Your task to perform on an android device: move an email to a new category in the gmail app Image 0: 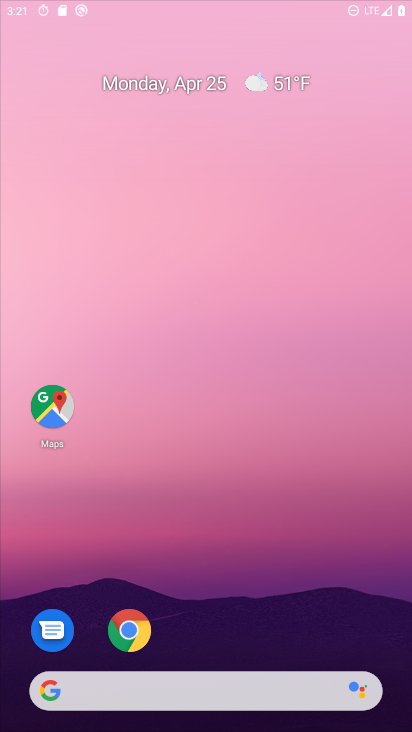
Step 0: drag from (192, 633) to (300, 146)
Your task to perform on an android device: move an email to a new category in the gmail app Image 1: 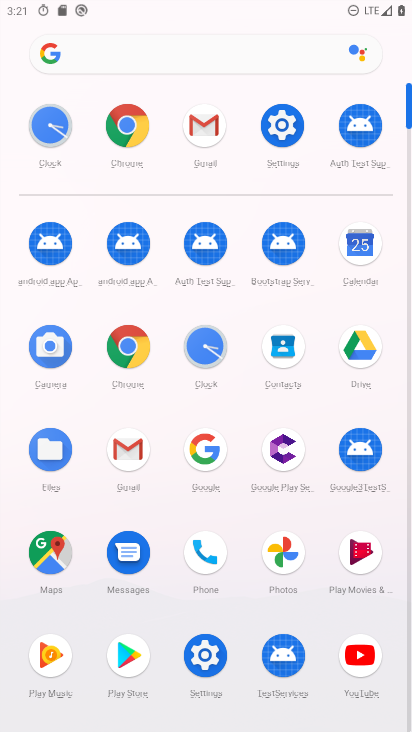
Step 1: drag from (196, 645) to (236, 322)
Your task to perform on an android device: move an email to a new category in the gmail app Image 2: 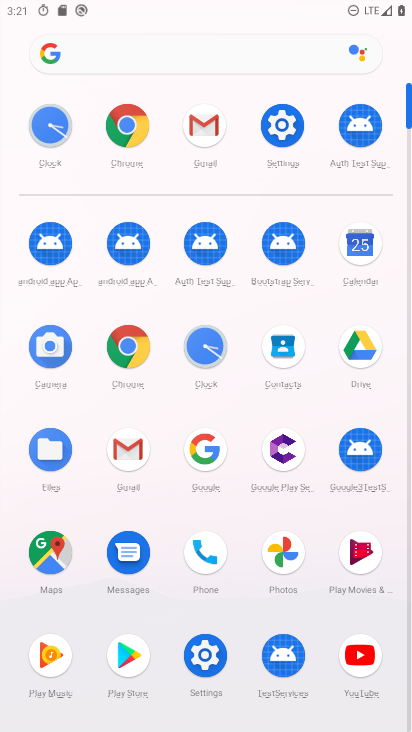
Step 2: click (128, 445)
Your task to perform on an android device: move an email to a new category in the gmail app Image 3: 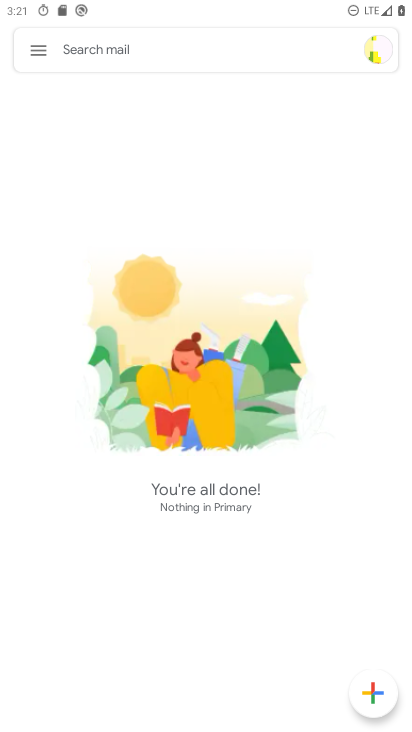
Step 3: click (42, 54)
Your task to perform on an android device: move an email to a new category in the gmail app Image 4: 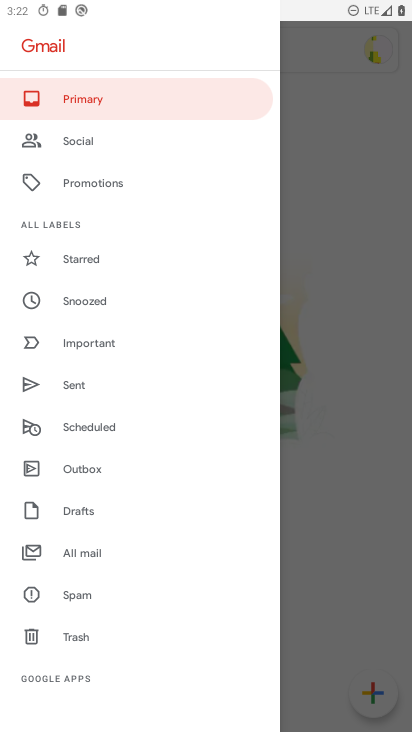
Step 4: click (81, 141)
Your task to perform on an android device: move an email to a new category in the gmail app Image 5: 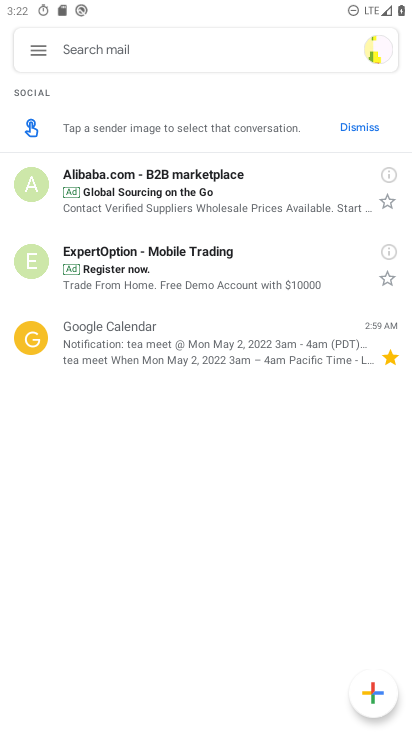
Step 5: drag from (212, 505) to (226, 257)
Your task to perform on an android device: move an email to a new category in the gmail app Image 6: 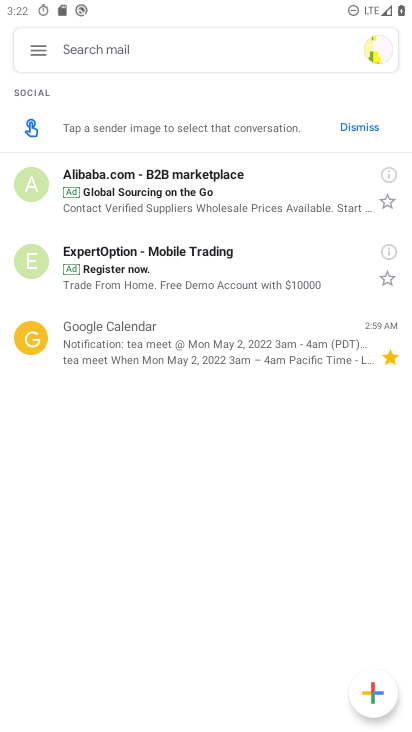
Step 6: click (29, 59)
Your task to perform on an android device: move an email to a new category in the gmail app Image 7: 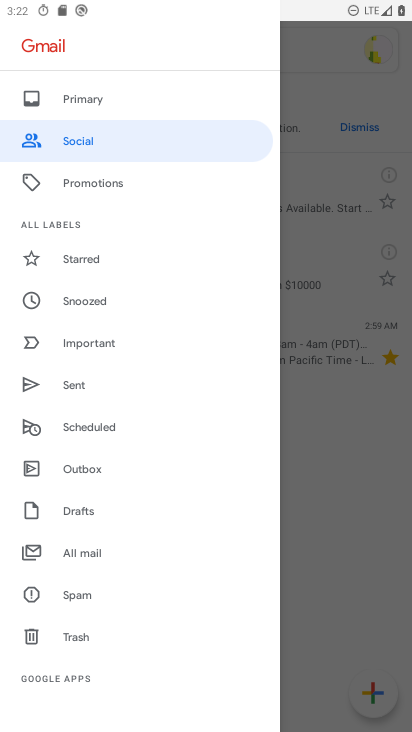
Step 7: drag from (180, 530) to (199, 320)
Your task to perform on an android device: move an email to a new category in the gmail app Image 8: 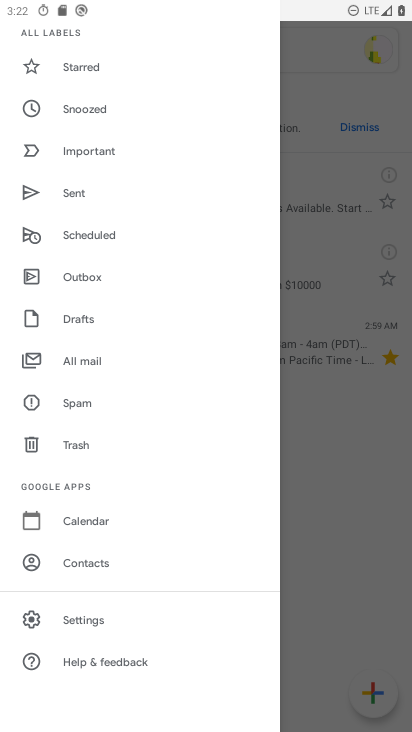
Step 8: click (99, 620)
Your task to perform on an android device: move an email to a new category in the gmail app Image 9: 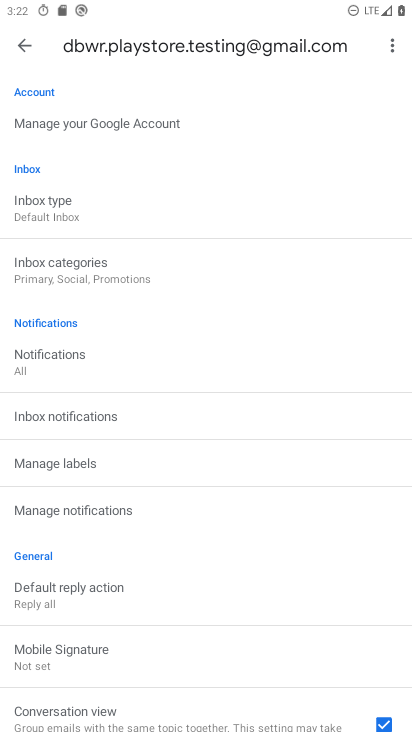
Step 9: click (20, 39)
Your task to perform on an android device: move an email to a new category in the gmail app Image 10: 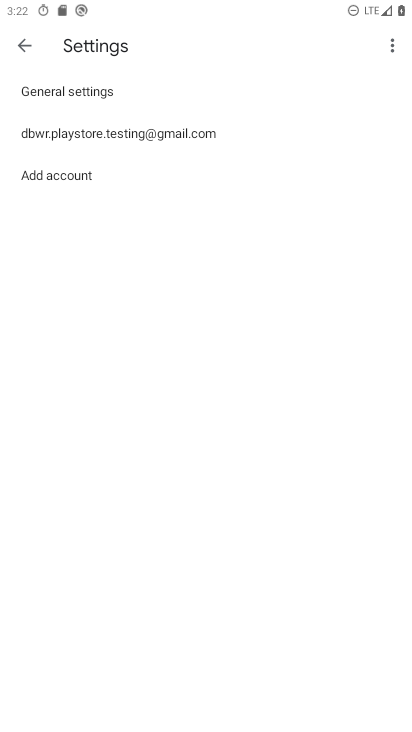
Step 10: click (22, 48)
Your task to perform on an android device: move an email to a new category in the gmail app Image 11: 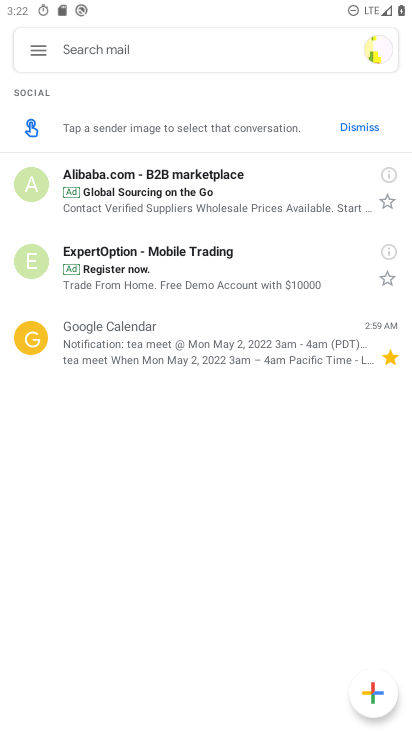
Step 11: task complete